Your task to perform on an android device: Open network settings Image 0: 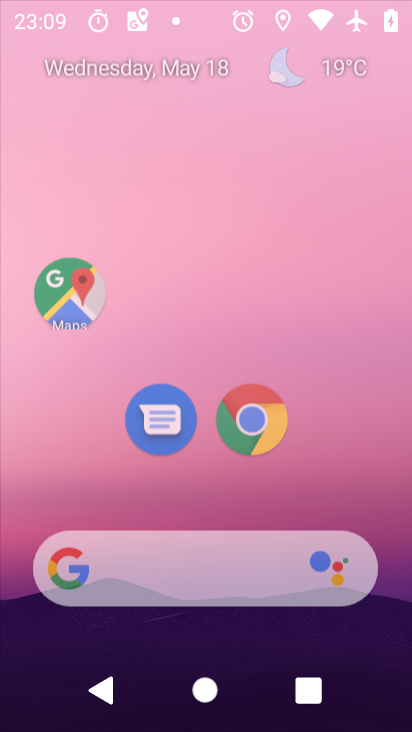
Step 0: press home button
Your task to perform on an android device: Open network settings Image 1: 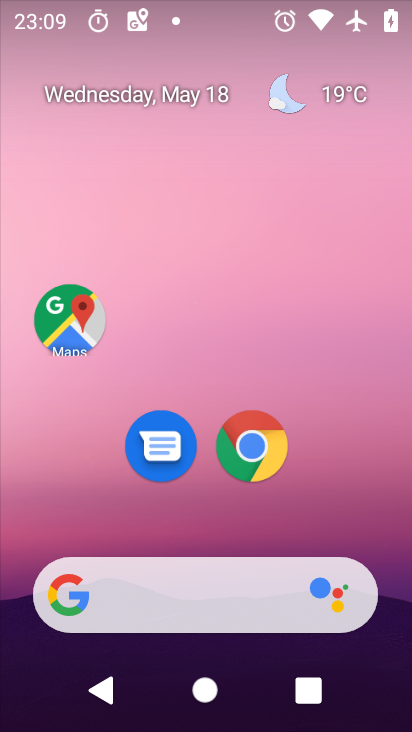
Step 1: drag from (200, 581) to (265, 159)
Your task to perform on an android device: Open network settings Image 2: 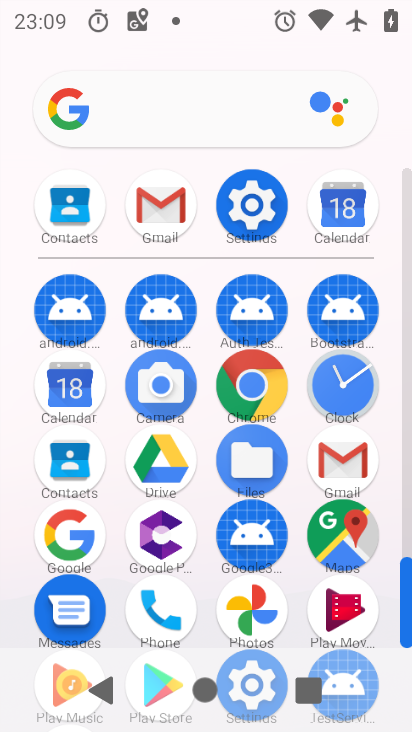
Step 2: click (235, 223)
Your task to perform on an android device: Open network settings Image 3: 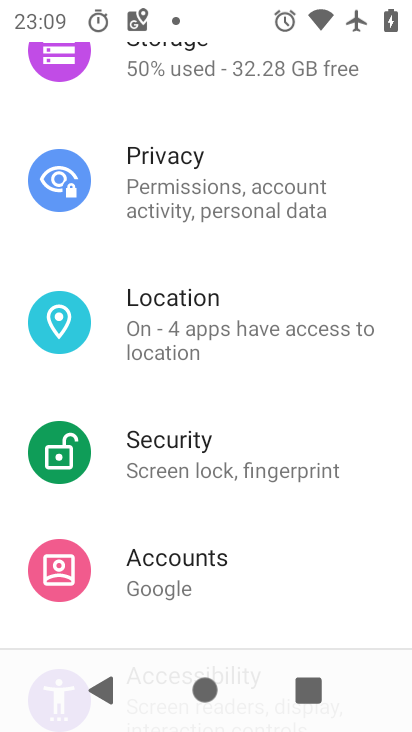
Step 3: drag from (263, 131) to (218, 535)
Your task to perform on an android device: Open network settings Image 4: 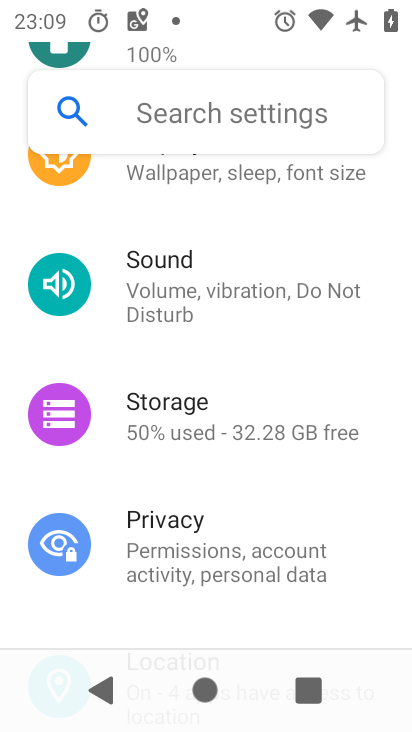
Step 4: drag from (285, 226) to (223, 618)
Your task to perform on an android device: Open network settings Image 5: 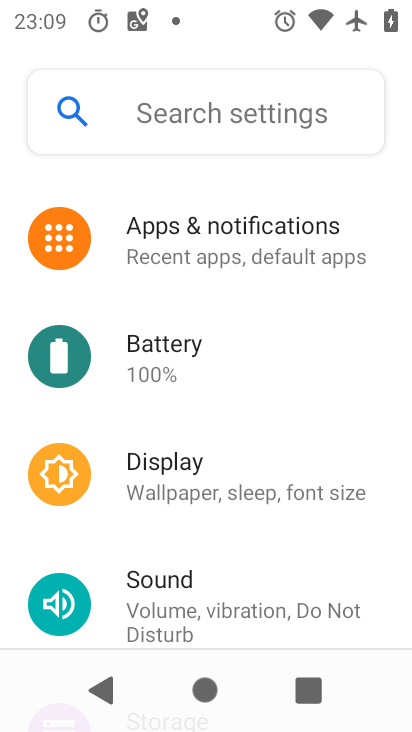
Step 5: drag from (257, 325) to (267, 691)
Your task to perform on an android device: Open network settings Image 6: 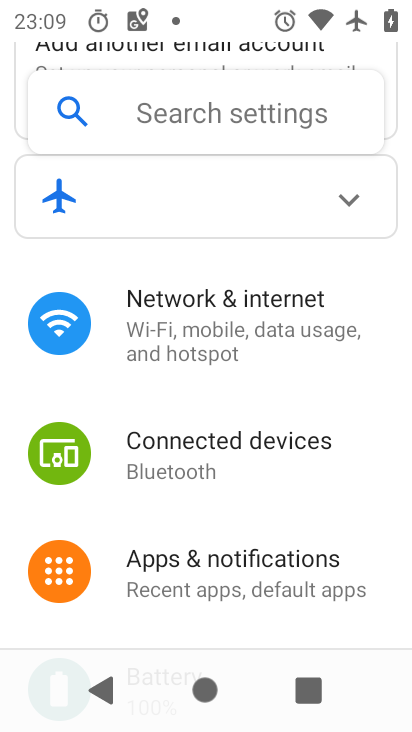
Step 6: click (231, 310)
Your task to perform on an android device: Open network settings Image 7: 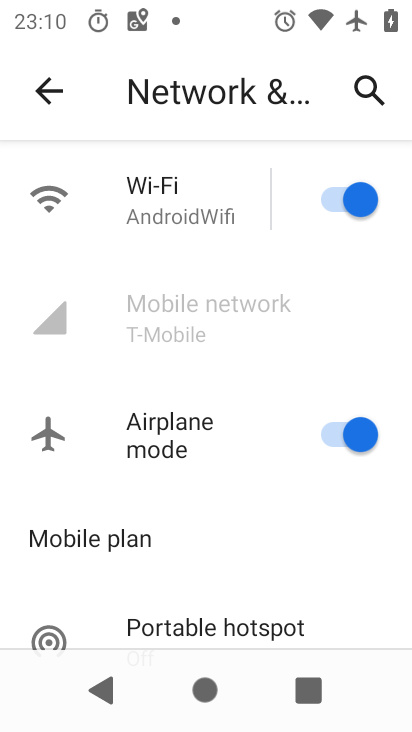
Step 7: task complete